Your task to perform on an android device: turn off picture-in-picture Image 0: 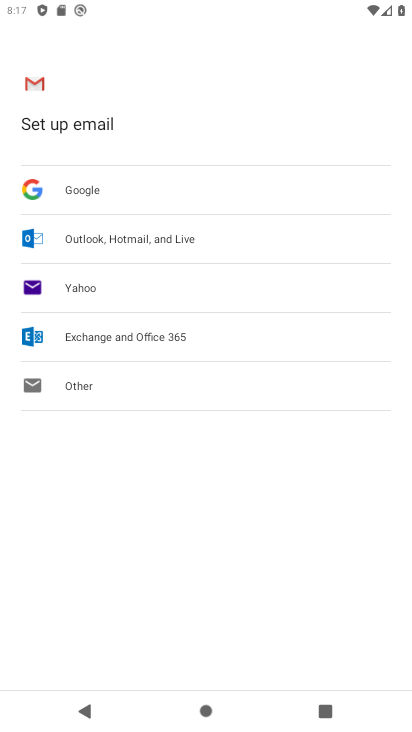
Step 0: press home button
Your task to perform on an android device: turn off picture-in-picture Image 1: 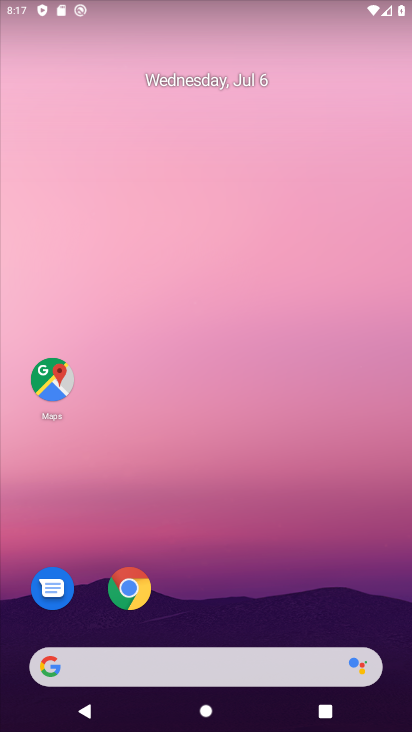
Step 1: drag from (288, 567) to (209, 124)
Your task to perform on an android device: turn off picture-in-picture Image 2: 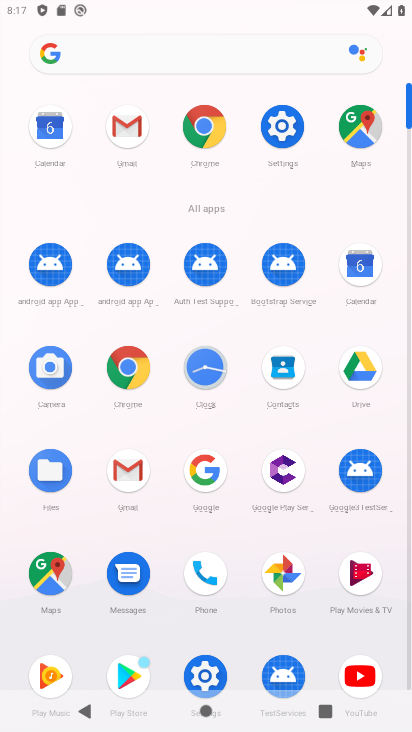
Step 2: click (285, 129)
Your task to perform on an android device: turn off picture-in-picture Image 3: 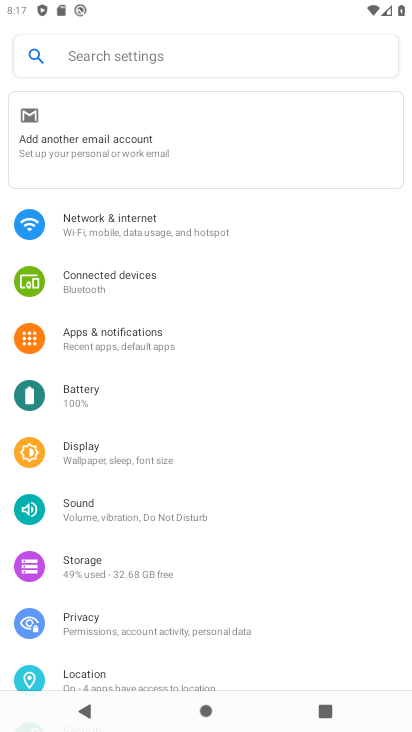
Step 3: click (120, 328)
Your task to perform on an android device: turn off picture-in-picture Image 4: 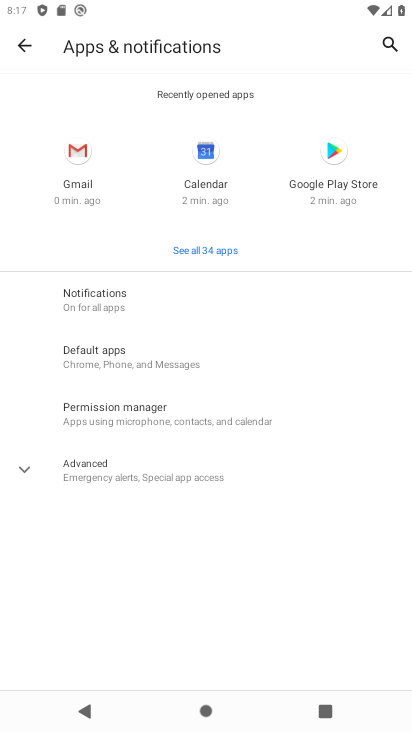
Step 4: click (87, 457)
Your task to perform on an android device: turn off picture-in-picture Image 5: 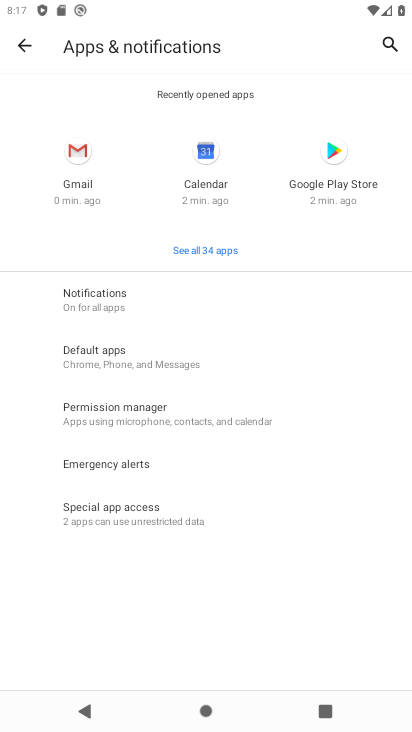
Step 5: click (113, 513)
Your task to perform on an android device: turn off picture-in-picture Image 6: 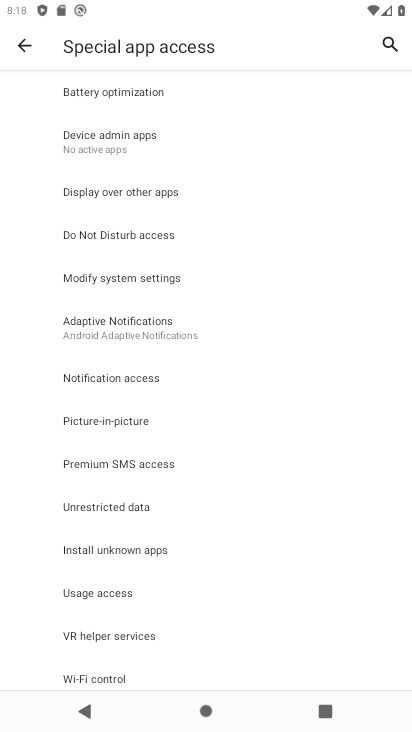
Step 6: click (129, 416)
Your task to perform on an android device: turn off picture-in-picture Image 7: 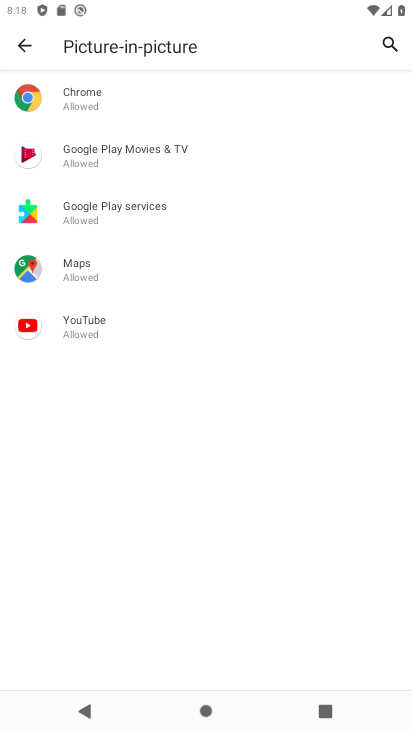
Step 7: click (126, 98)
Your task to perform on an android device: turn off picture-in-picture Image 8: 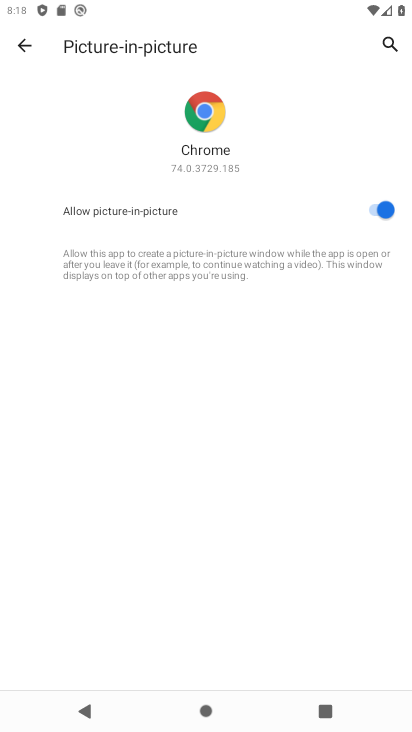
Step 8: click (377, 211)
Your task to perform on an android device: turn off picture-in-picture Image 9: 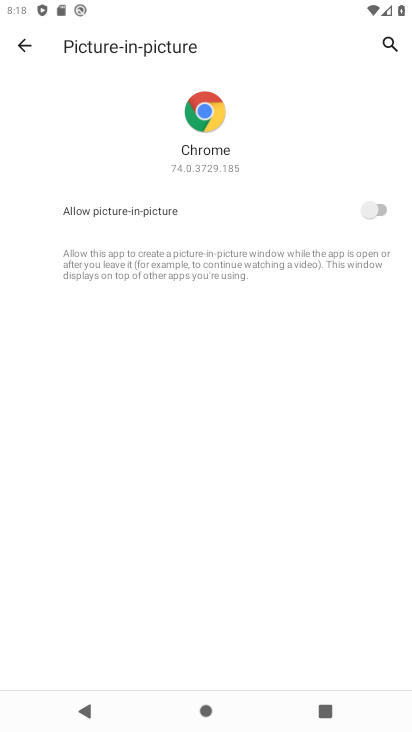
Step 9: click (25, 42)
Your task to perform on an android device: turn off picture-in-picture Image 10: 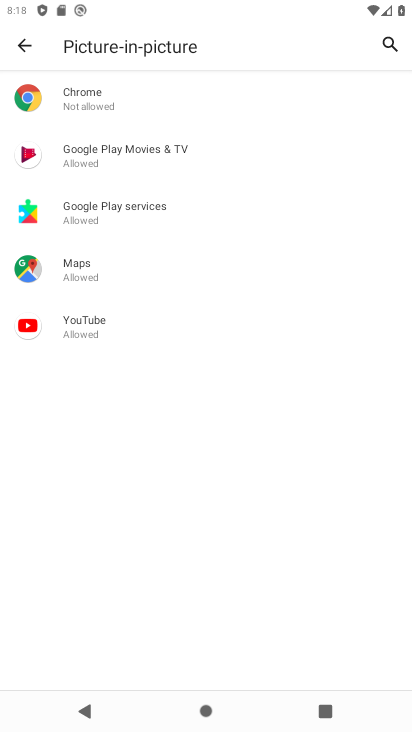
Step 10: click (109, 139)
Your task to perform on an android device: turn off picture-in-picture Image 11: 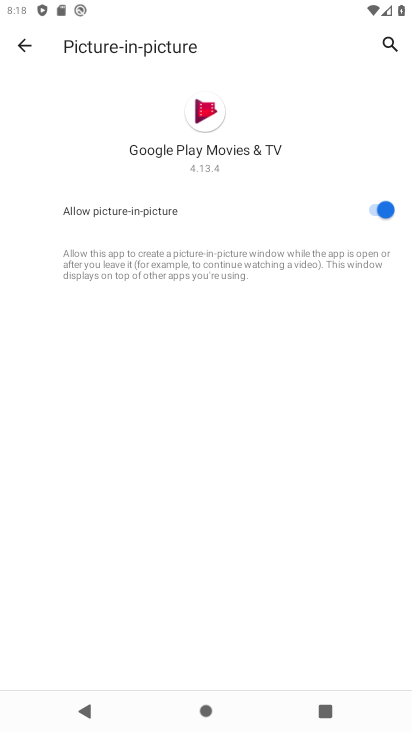
Step 11: click (373, 209)
Your task to perform on an android device: turn off picture-in-picture Image 12: 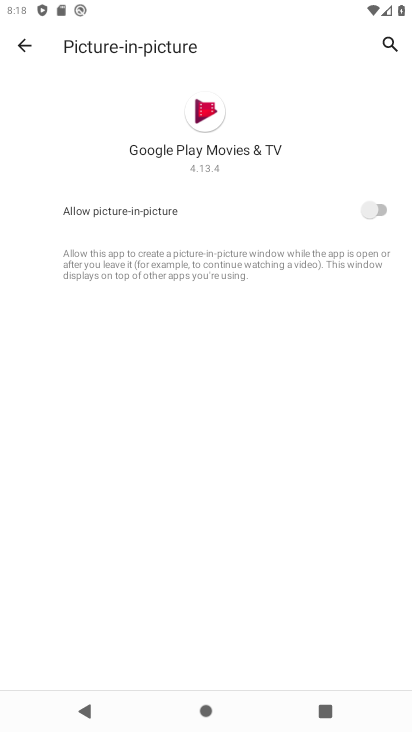
Step 12: click (21, 43)
Your task to perform on an android device: turn off picture-in-picture Image 13: 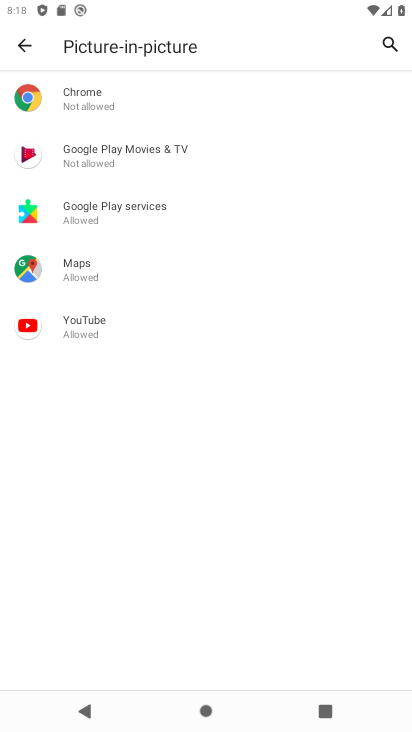
Step 13: click (91, 217)
Your task to perform on an android device: turn off picture-in-picture Image 14: 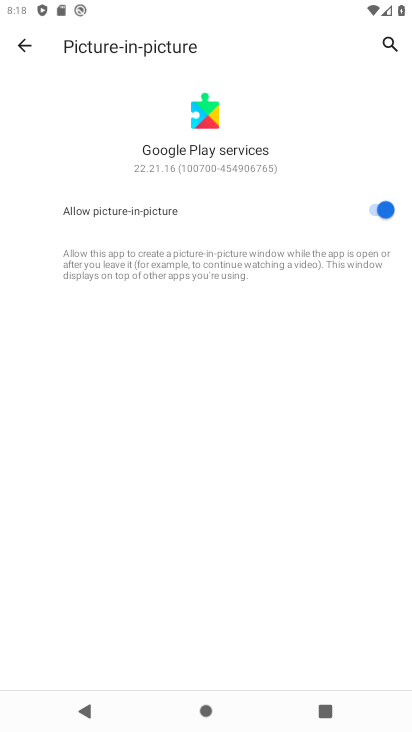
Step 14: click (385, 202)
Your task to perform on an android device: turn off picture-in-picture Image 15: 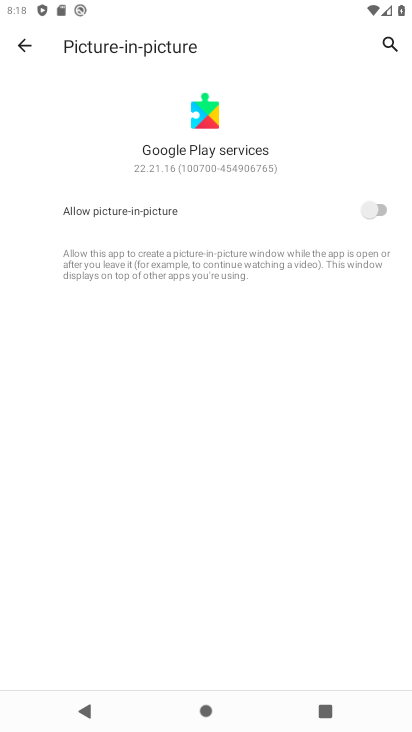
Step 15: click (27, 53)
Your task to perform on an android device: turn off picture-in-picture Image 16: 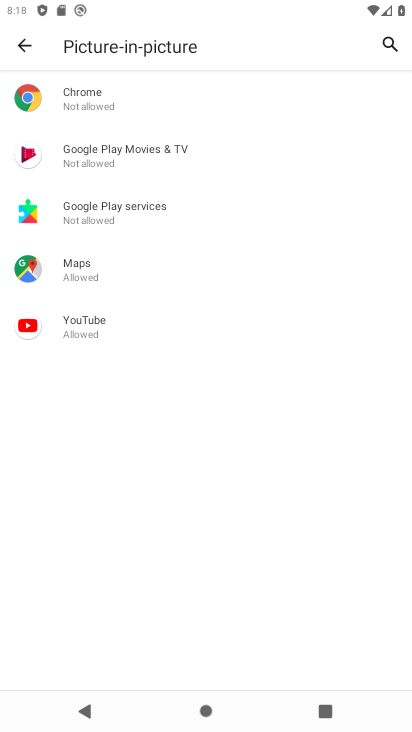
Step 16: click (75, 271)
Your task to perform on an android device: turn off picture-in-picture Image 17: 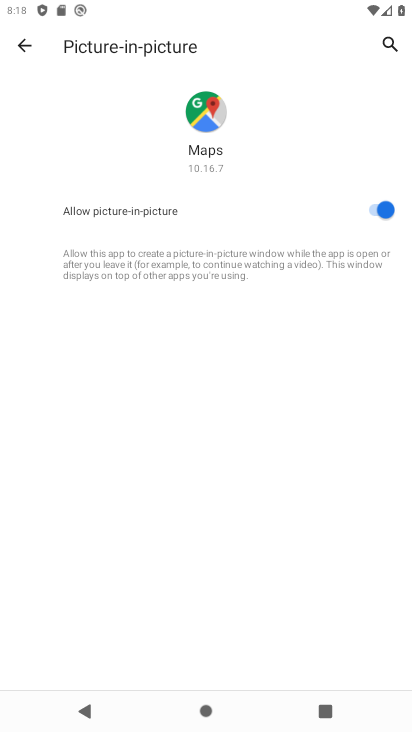
Step 17: click (377, 205)
Your task to perform on an android device: turn off picture-in-picture Image 18: 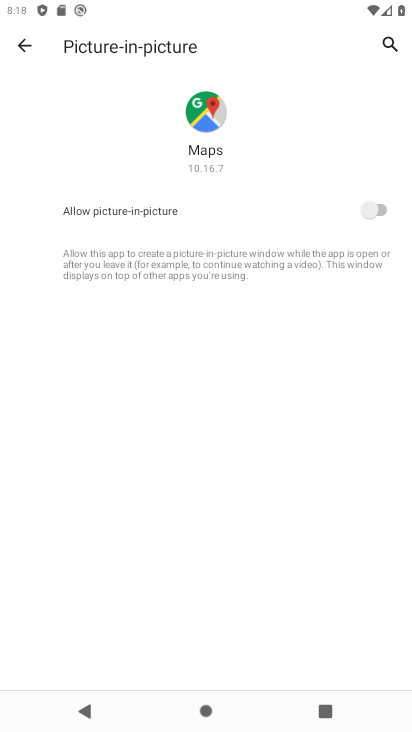
Step 18: click (24, 39)
Your task to perform on an android device: turn off picture-in-picture Image 19: 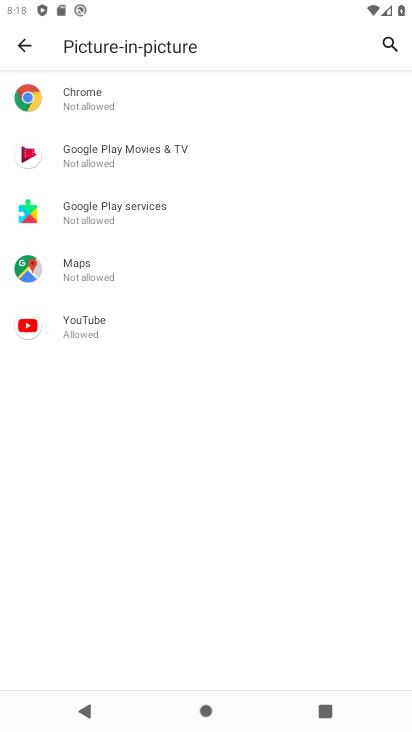
Step 19: click (93, 321)
Your task to perform on an android device: turn off picture-in-picture Image 20: 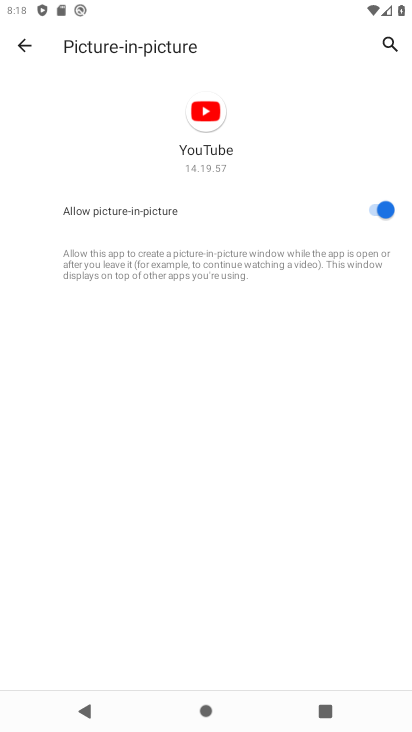
Step 20: click (380, 208)
Your task to perform on an android device: turn off picture-in-picture Image 21: 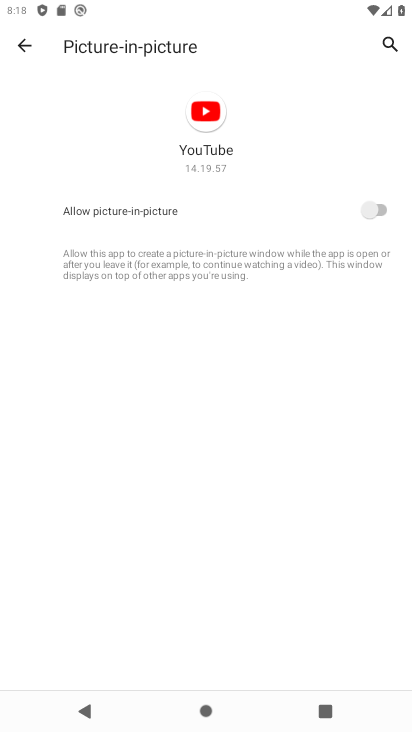
Step 21: task complete